Your task to perform on an android device: turn on bluetooth scan Image 0: 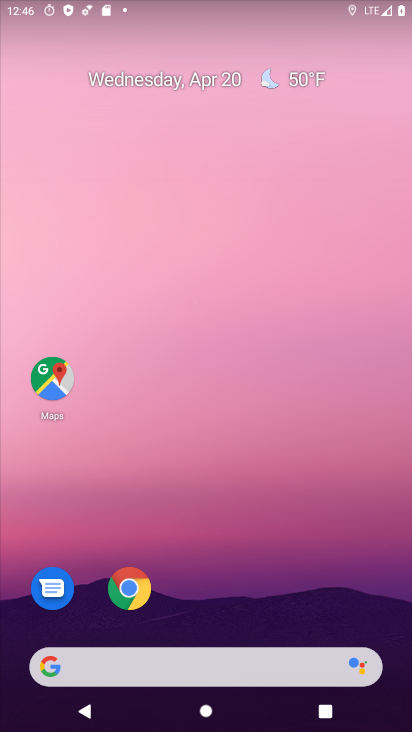
Step 0: drag from (214, 626) to (270, 11)
Your task to perform on an android device: turn on bluetooth scan Image 1: 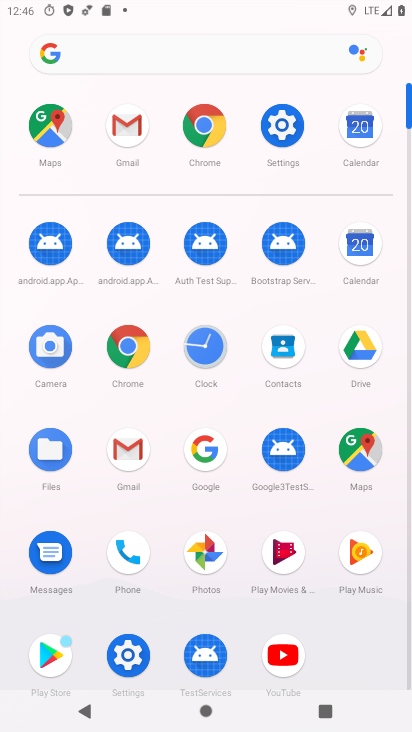
Step 1: click (281, 126)
Your task to perform on an android device: turn on bluetooth scan Image 2: 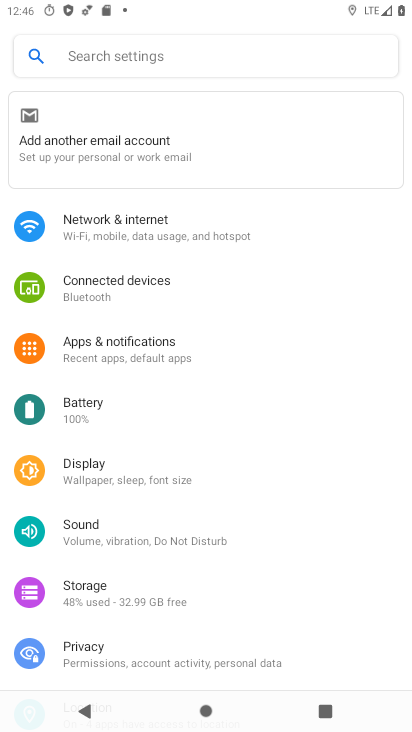
Step 2: drag from (138, 563) to (109, 192)
Your task to perform on an android device: turn on bluetooth scan Image 3: 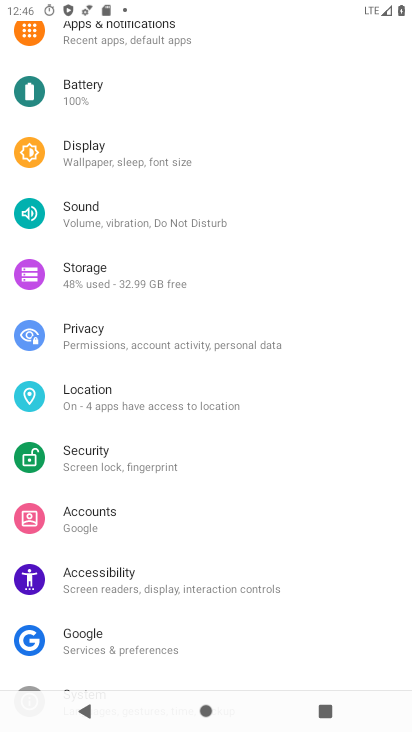
Step 3: drag from (164, 243) to (143, 534)
Your task to perform on an android device: turn on bluetooth scan Image 4: 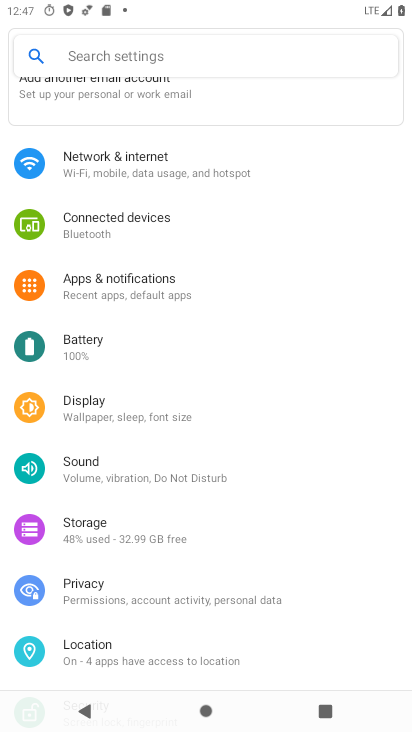
Step 4: click (110, 629)
Your task to perform on an android device: turn on bluetooth scan Image 5: 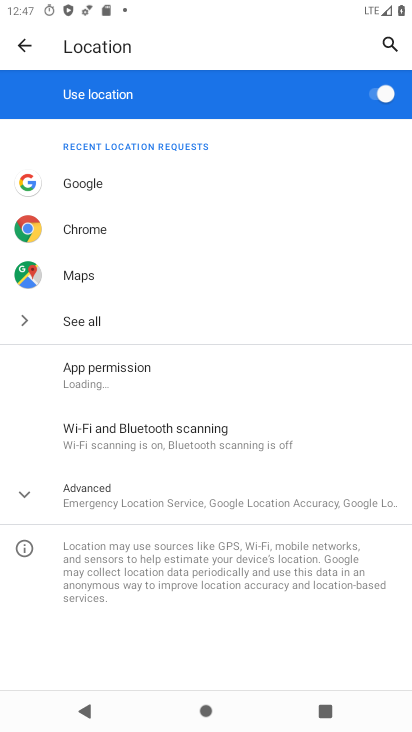
Step 5: click (144, 404)
Your task to perform on an android device: turn on bluetooth scan Image 6: 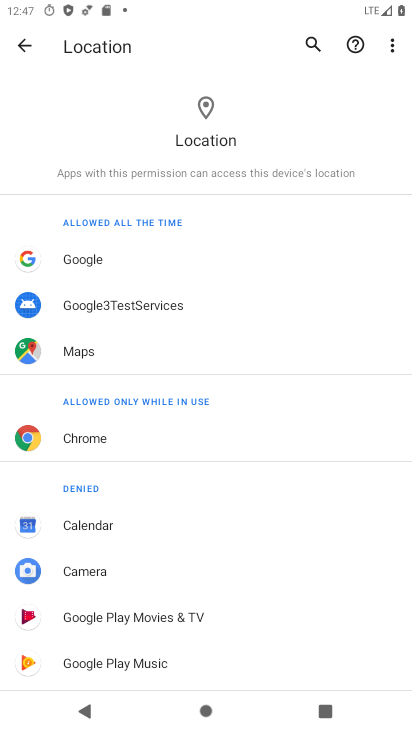
Step 6: click (14, 34)
Your task to perform on an android device: turn on bluetooth scan Image 7: 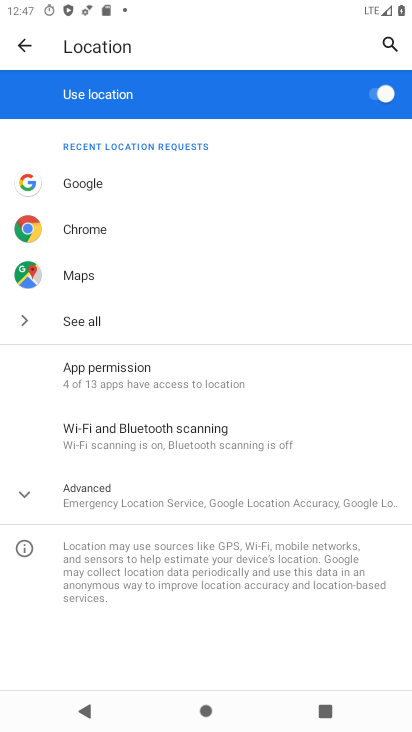
Step 7: click (149, 450)
Your task to perform on an android device: turn on bluetooth scan Image 8: 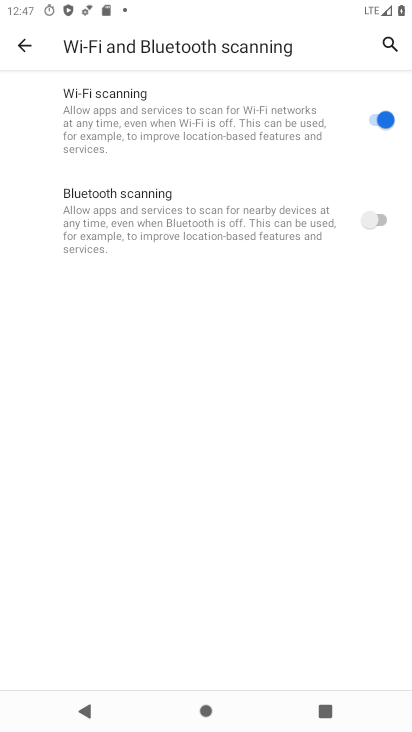
Step 8: click (363, 226)
Your task to perform on an android device: turn on bluetooth scan Image 9: 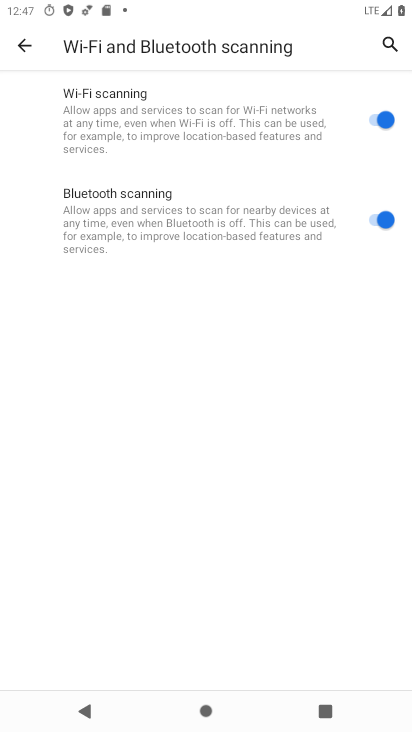
Step 9: task complete